Your task to perform on an android device: Go to Maps Image 0: 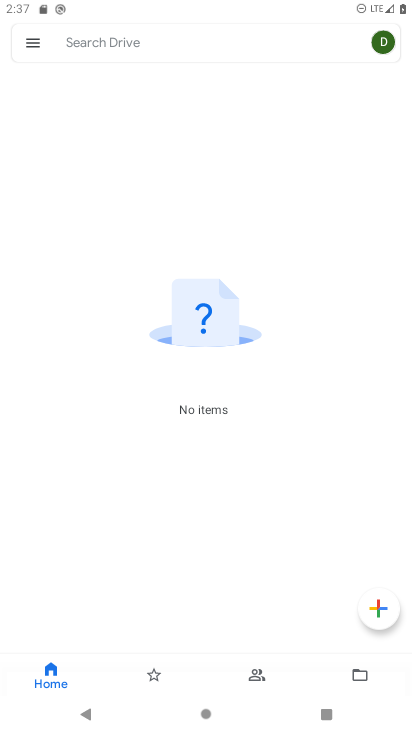
Step 0: press home button
Your task to perform on an android device: Go to Maps Image 1: 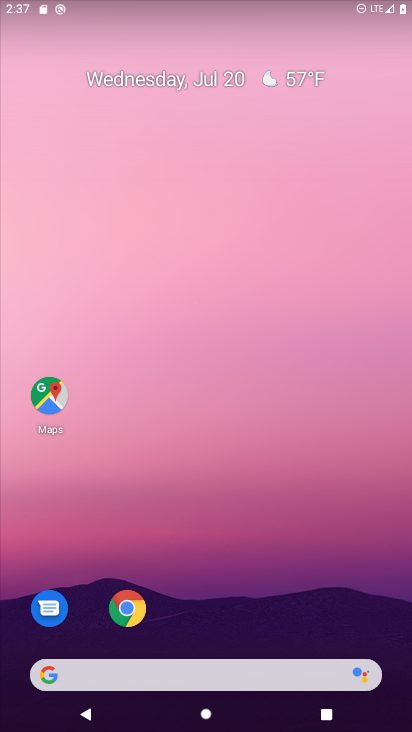
Step 1: drag from (232, 708) to (216, 65)
Your task to perform on an android device: Go to Maps Image 2: 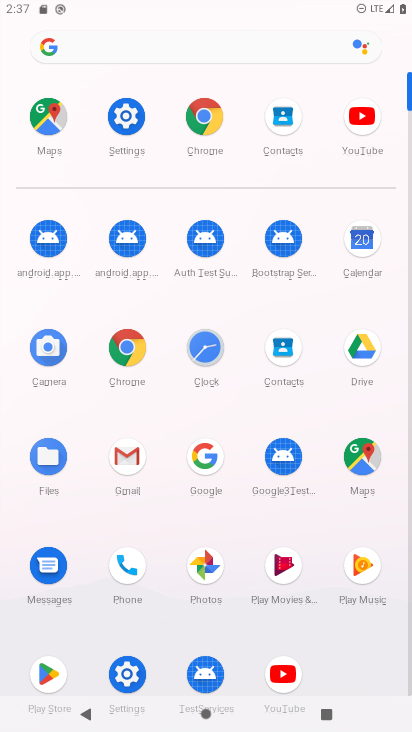
Step 2: click (367, 452)
Your task to perform on an android device: Go to Maps Image 3: 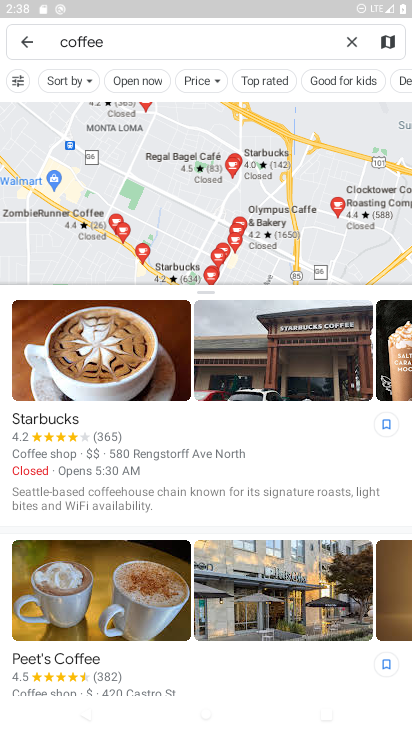
Step 3: task complete